Your task to perform on an android device: allow cookies in the chrome app Image 0: 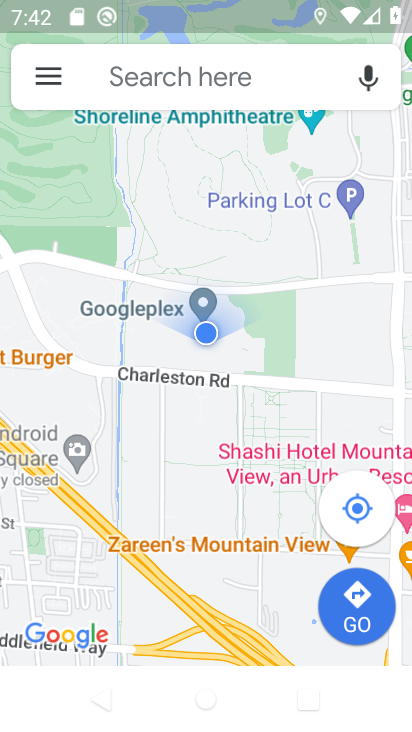
Step 0: press home button
Your task to perform on an android device: allow cookies in the chrome app Image 1: 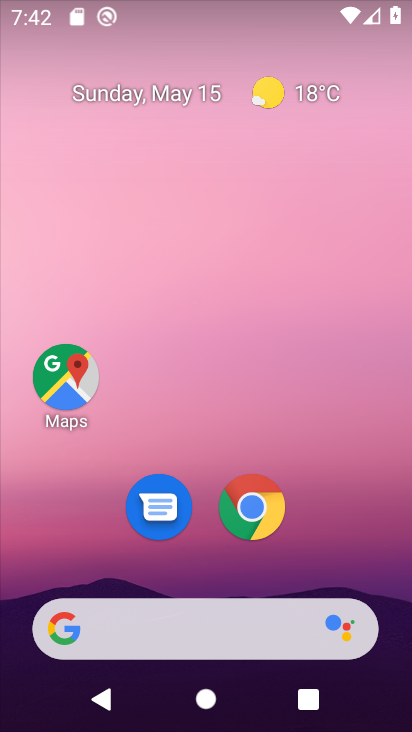
Step 1: click (261, 502)
Your task to perform on an android device: allow cookies in the chrome app Image 2: 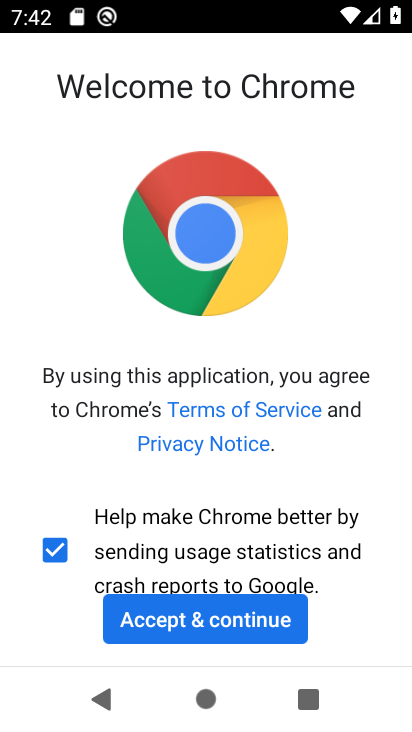
Step 2: click (212, 616)
Your task to perform on an android device: allow cookies in the chrome app Image 3: 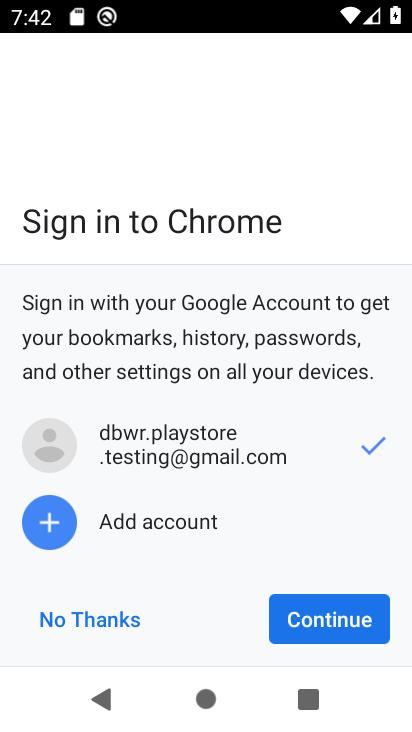
Step 3: click (367, 620)
Your task to perform on an android device: allow cookies in the chrome app Image 4: 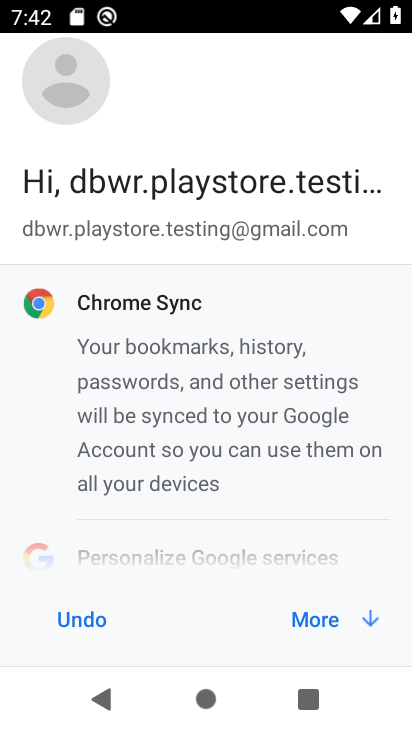
Step 4: click (348, 613)
Your task to perform on an android device: allow cookies in the chrome app Image 5: 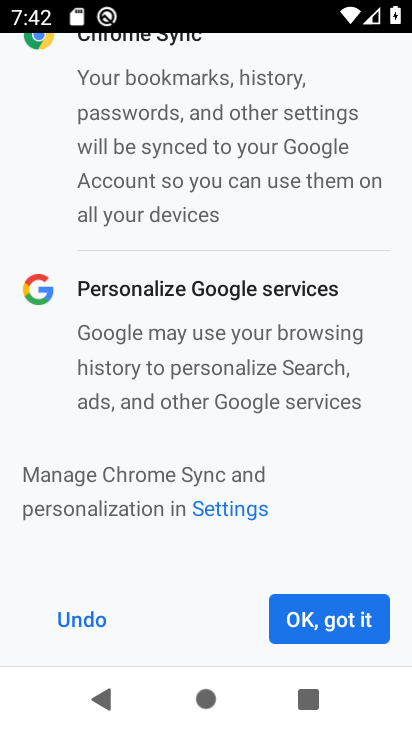
Step 5: click (348, 613)
Your task to perform on an android device: allow cookies in the chrome app Image 6: 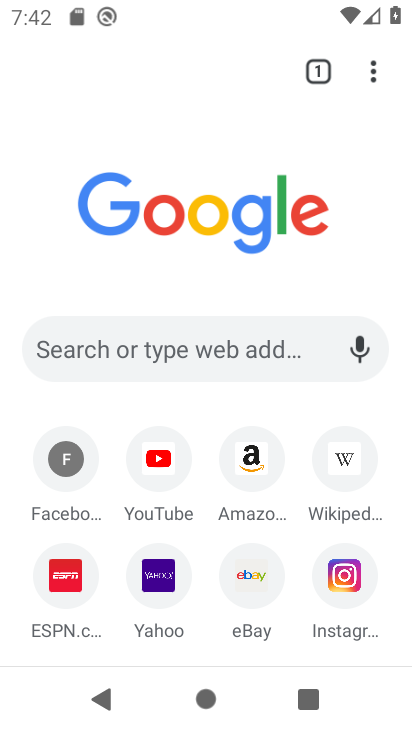
Step 6: click (370, 80)
Your task to perform on an android device: allow cookies in the chrome app Image 7: 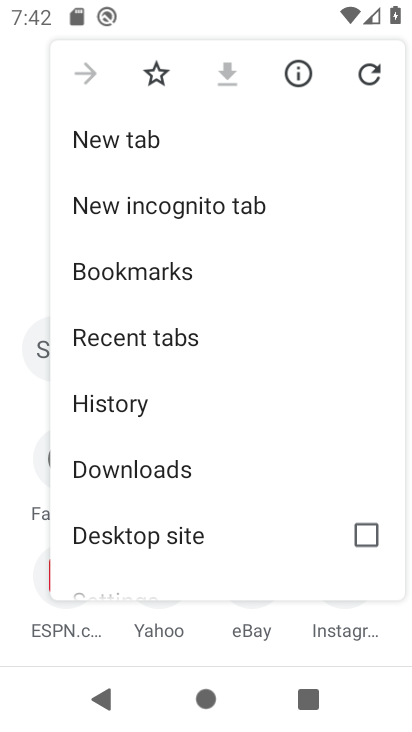
Step 7: drag from (216, 508) to (283, 156)
Your task to perform on an android device: allow cookies in the chrome app Image 8: 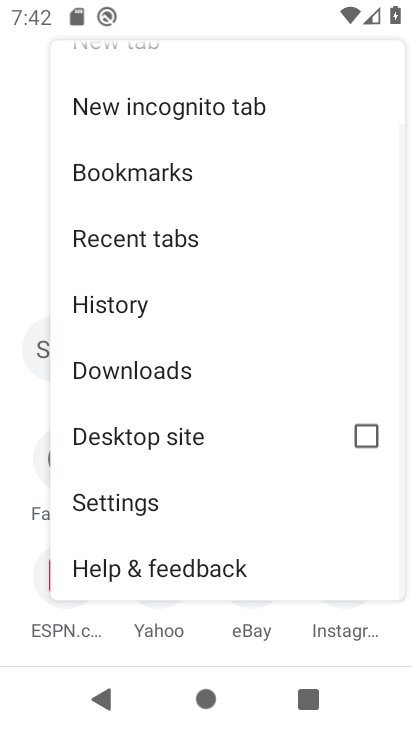
Step 8: click (97, 495)
Your task to perform on an android device: allow cookies in the chrome app Image 9: 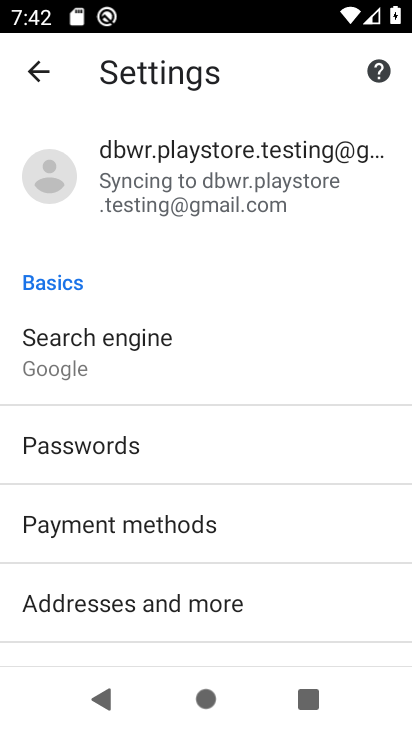
Step 9: drag from (259, 614) to (251, 147)
Your task to perform on an android device: allow cookies in the chrome app Image 10: 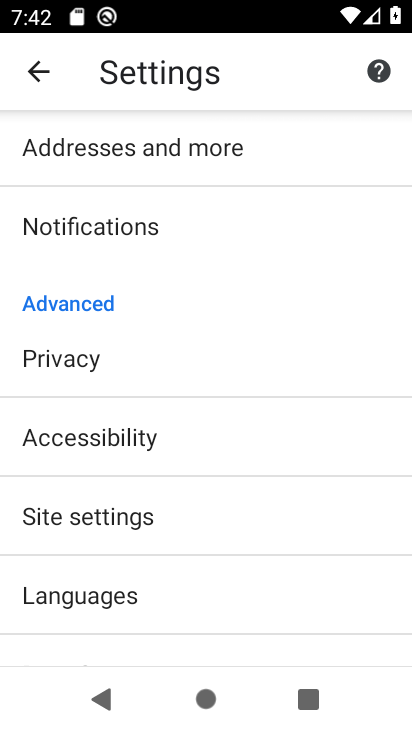
Step 10: drag from (193, 586) to (206, 363)
Your task to perform on an android device: allow cookies in the chrome app Image 11: 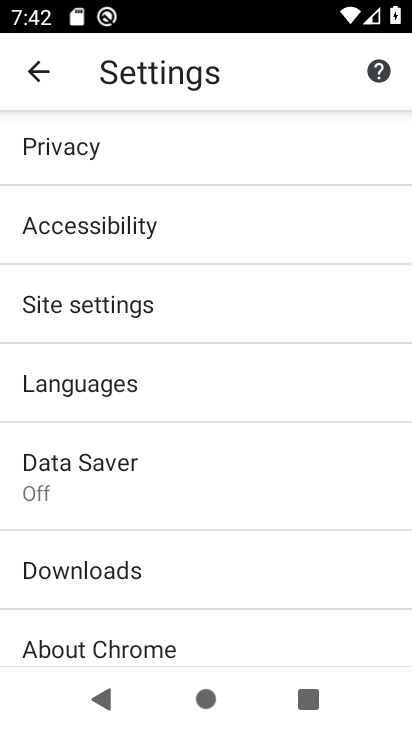
Step 11: click (82, 301)
Your task to perform on an android device: allow cookies in the chrome app Image 12: 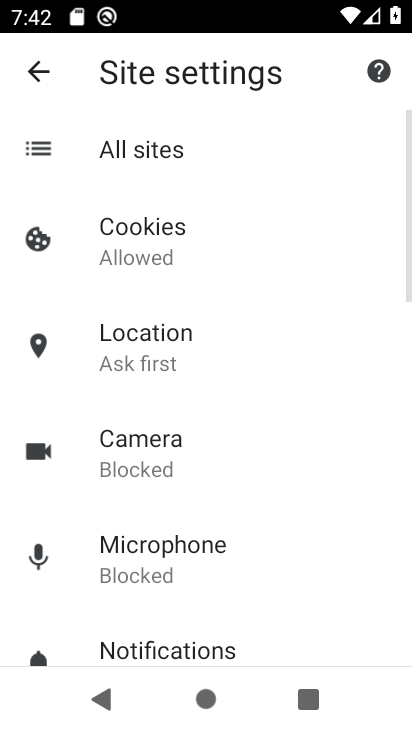
Step 12: click (123, 248)
Your task to perform on an android device: allow cookies in the chrome app Image 13: 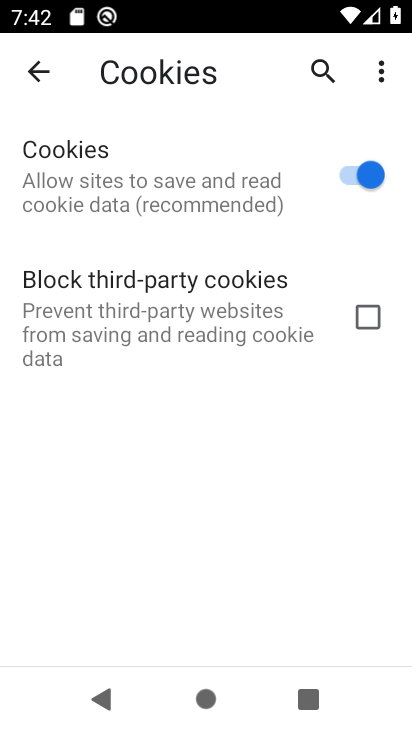
Step 13: task complete